Your task to perform on an android device: Open maps Image 0: 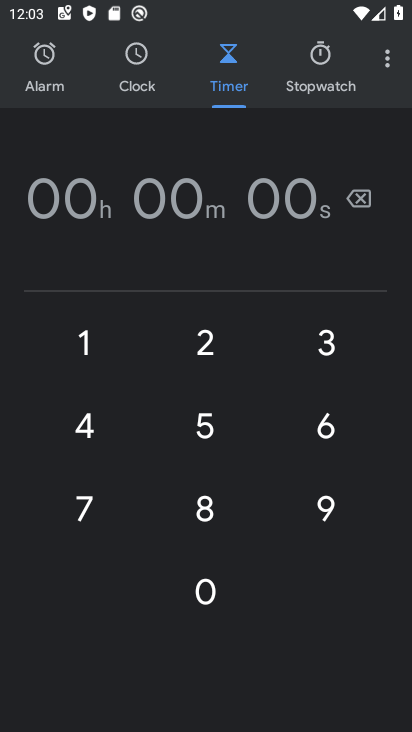
Step 0: press home button
Your task to perform on an android device: Open maps Image 1: 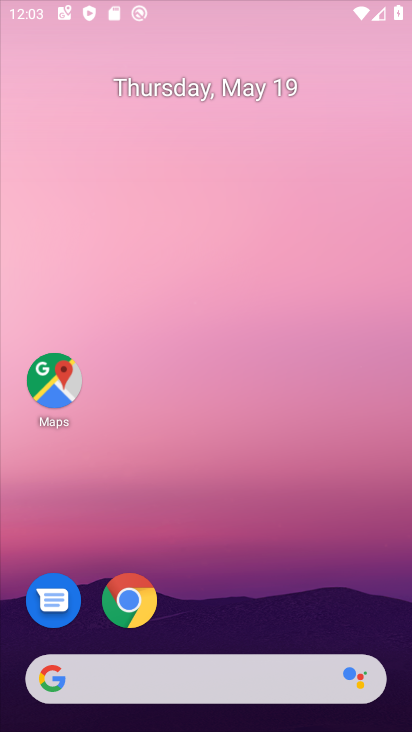
Step 1: click (64, 379)
Your task to perform on an android device: Open maps Image 2: 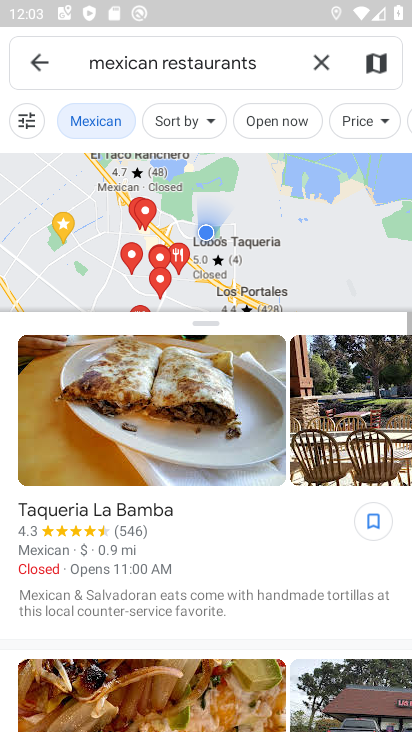
Step 2: task complete